Your task to perform on an android device: turn on airplane mode Image 0: 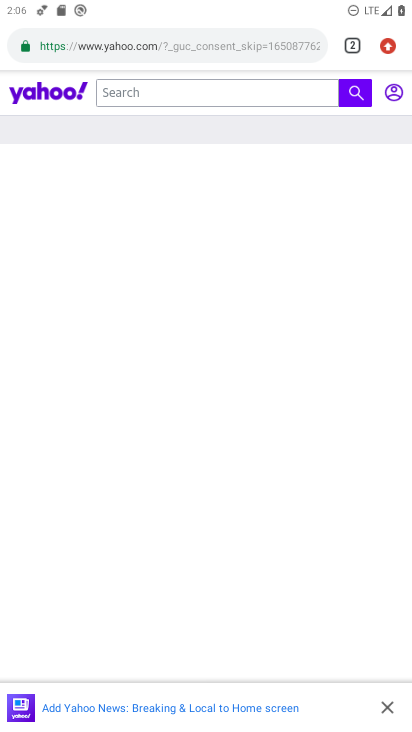
Step 0: press home button
Your task to perform on an android device: turn on airplane mode Image 1: 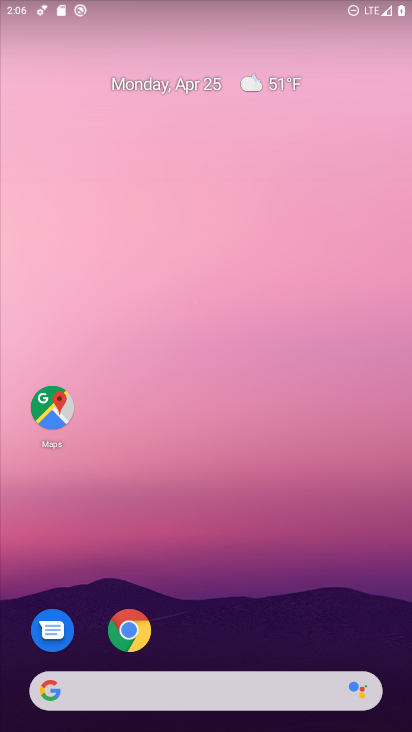
Step 1: drag from (313, 564) to (365, 94)
Your task to perform on an android device: turn on airplane mode Image 2: 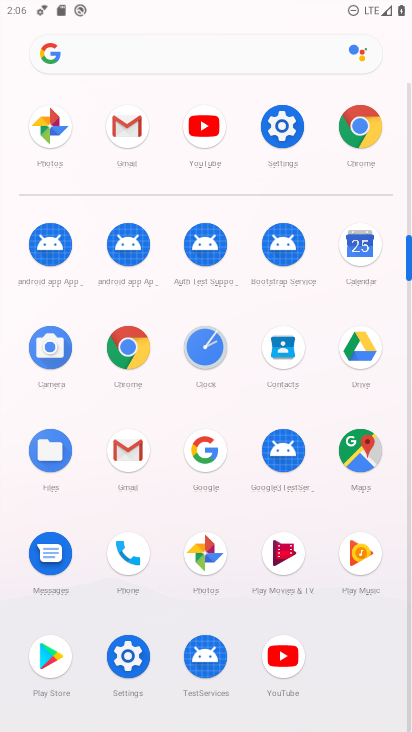
Step 2: click (287, 141)
Your task to perform on an android device: turn on airplane mode Image 3: 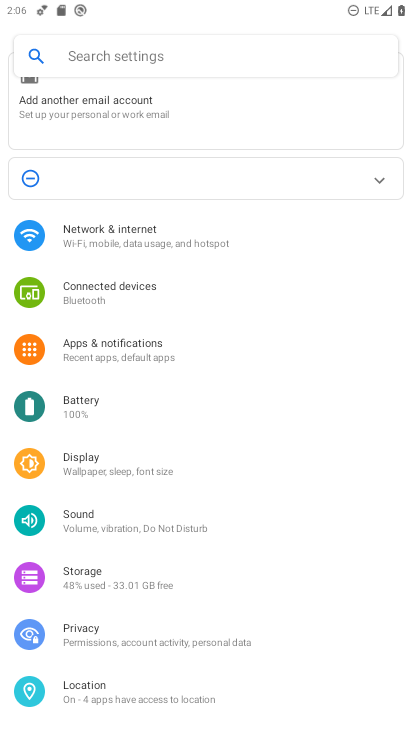
Step 3: click (125, 243)
Your task to perform on an android device: turn on airplane mode Image 4: 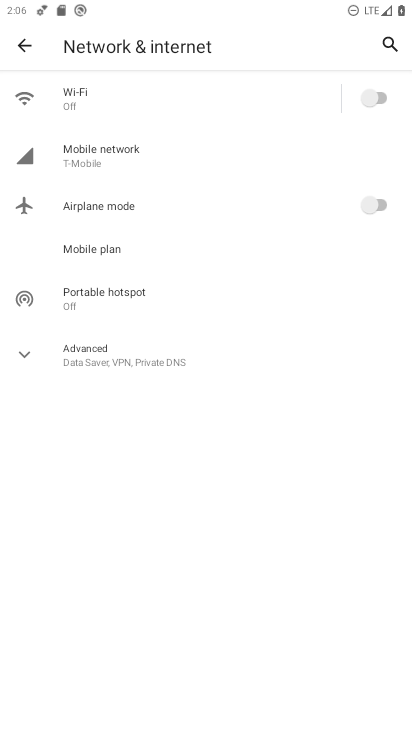
Step 4: click (370, 204)
Your task to perform on an android device: turn on airplane mode Image 5: 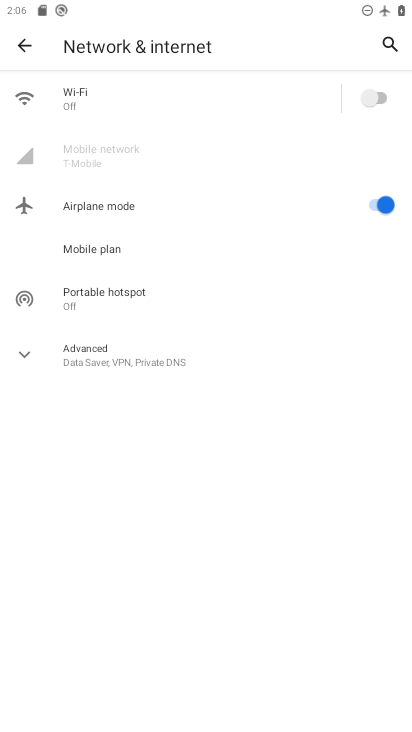
Step 5: task complete